Your task to perform on an android device: change your default location settings in chrome Image 0: 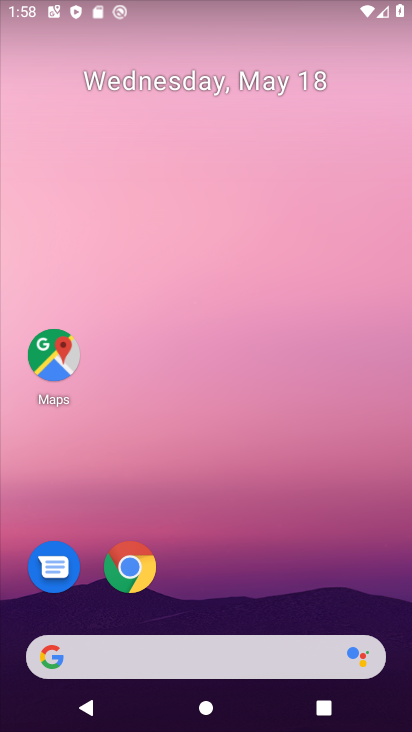
Step 0: click (137, 564)
Your task to perform on an android device: change your default location settings in chrome Image 1: 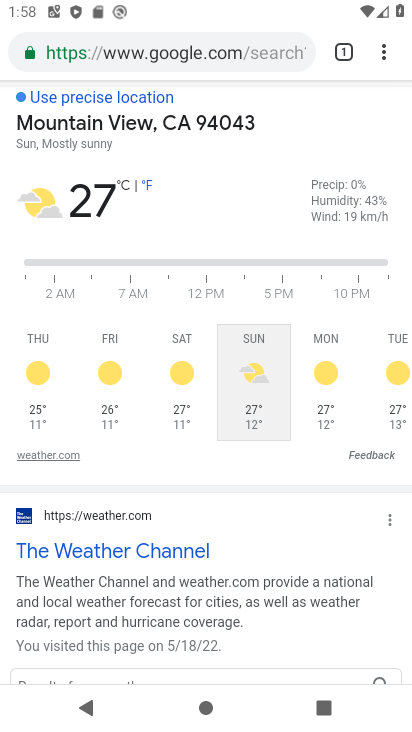
Step 1: drag from (384, 57) to (237, 580)
Your task to perform on an android device: change your default location settings in chrome Image 2: 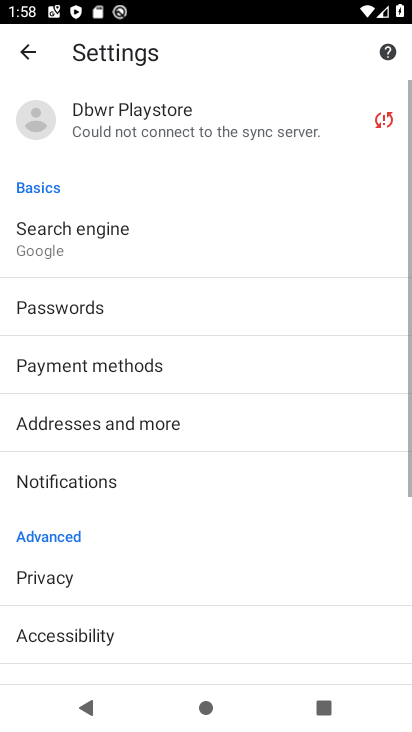
Step 2: drag from (178, 576) to (214, 101)
Your task to perform on an android device: change your default location settings in chrome Image 3: 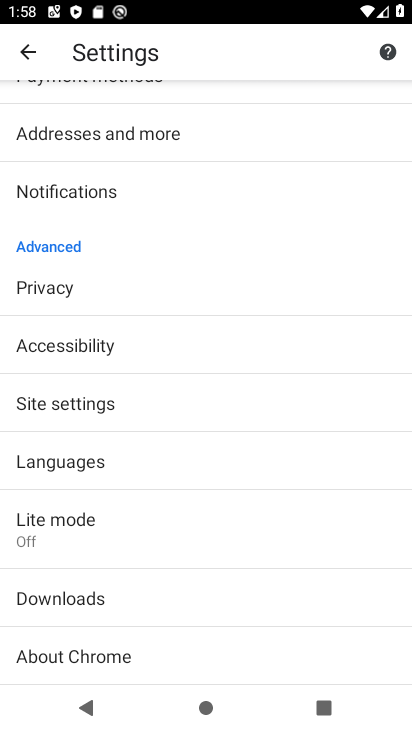
Step 3: click (95, 411)
Your task to perform on an android device: change your default location settings in chrome Image 4: 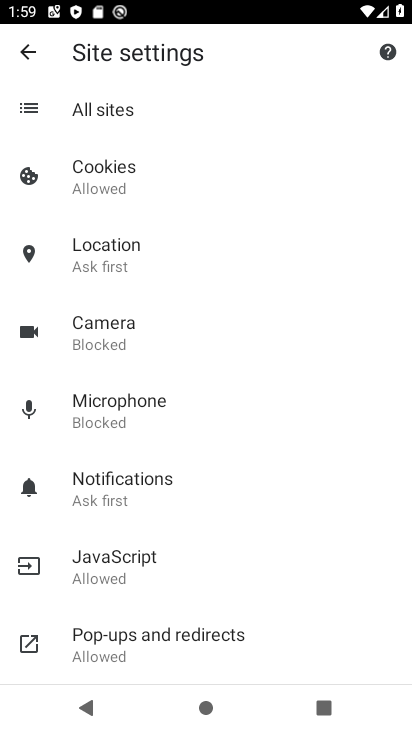
Step 4: click (131, 249)
Your task to perform on an android device: change your default location settings in chrome Image 5: 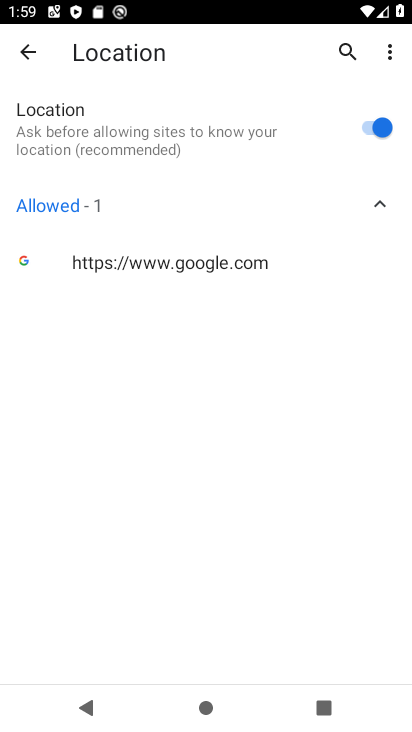
Step 5: click (356, 127)
Your task to perform on an android device: change your default location settings in chrome Image 6: 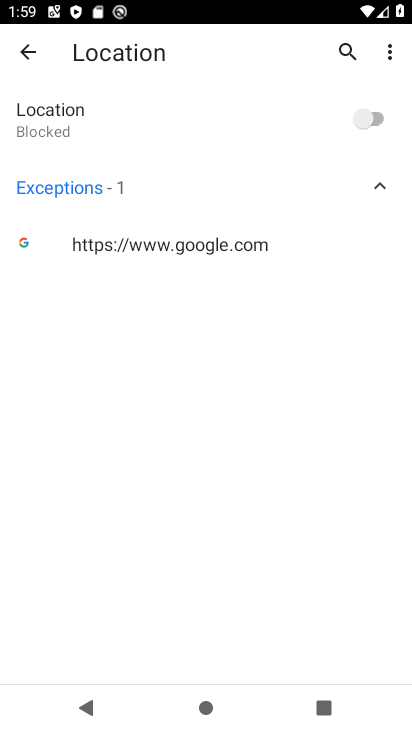
Step 6: task complete